Your task to perform on an android device: turn on location history Image 0: 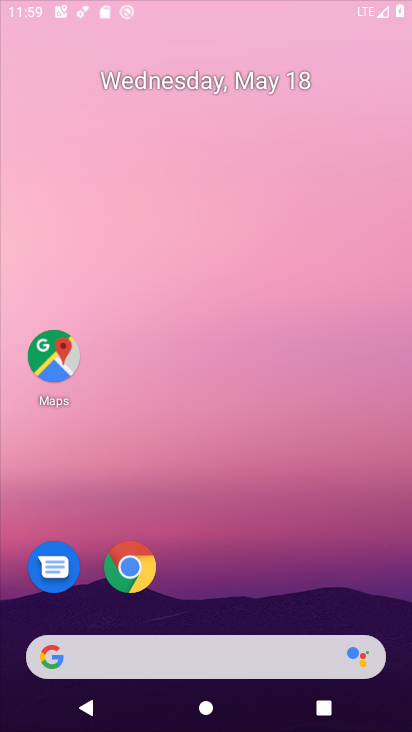
Step 0: drag from (305, 466) to (370, 3)
Your task to perform on an android device: turn on location history Image 1: 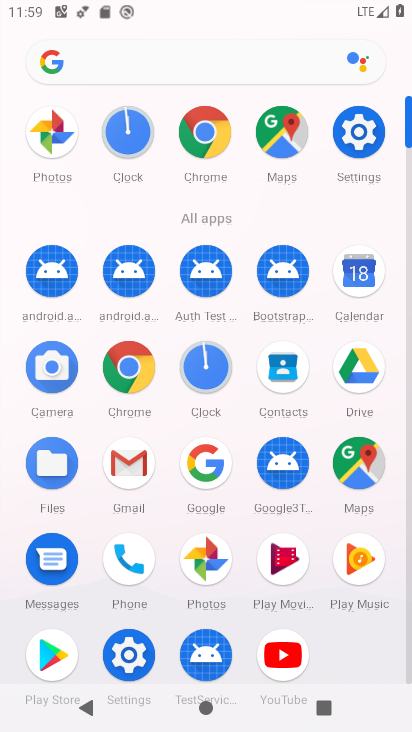
Step 1: click (361, 130)
Your task to perform on an android device: turn on location history Image 2: 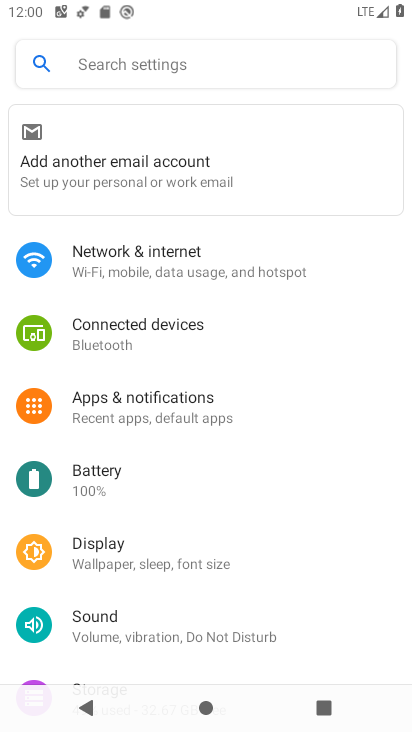
Step 2: drag from (156, 593) to (214, 274)
Your task to perform on an android device: turn on location history Image 3: 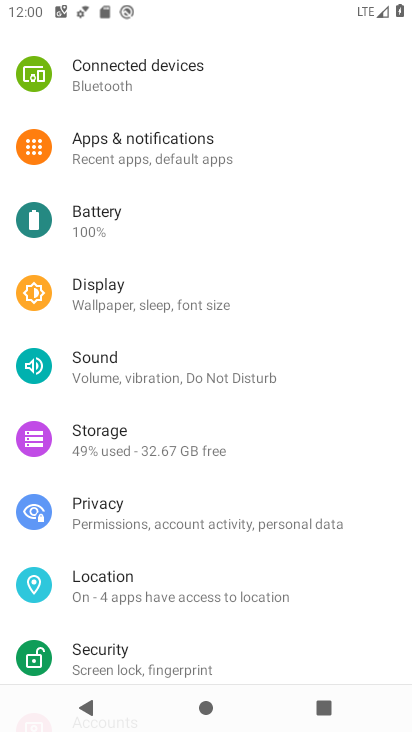
Step 3: click (145, 577)
Your task to perform on an android device: turn on location history Image 4: 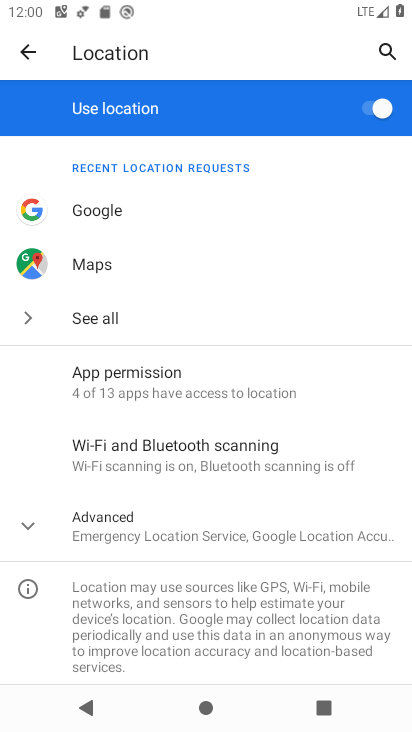
Step 4: task complete